Your task to perform on an android device: Show me popular videos on Youtube Image 0: 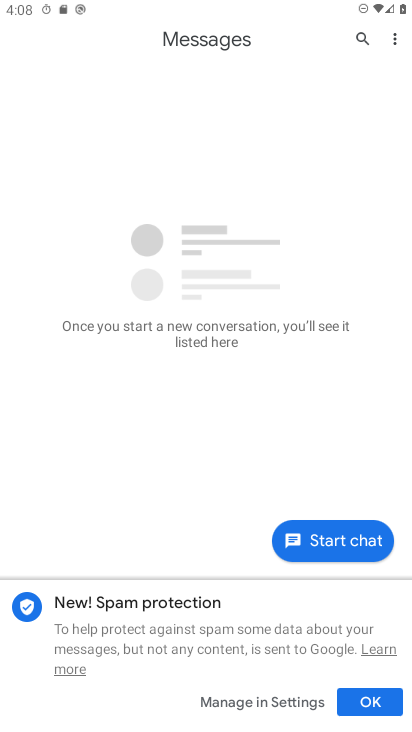
Step 0: press home button
Your task to perform on an android device: Show me popular videos on Youtube Image 1: 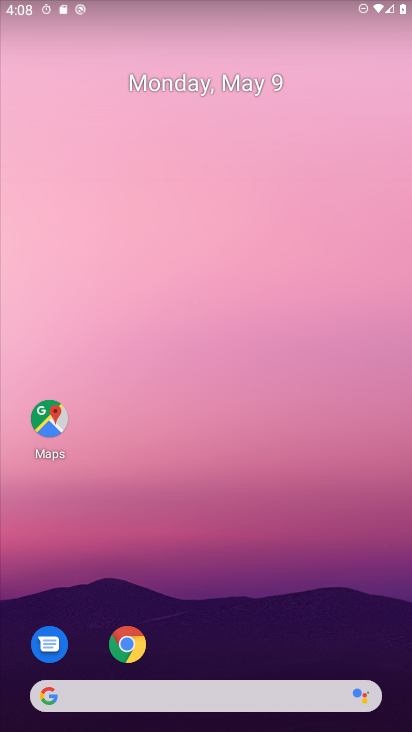
Step 1: click (141, 649)
Your task to perform on an android device: Show me popular videos on Youtube Image 2: 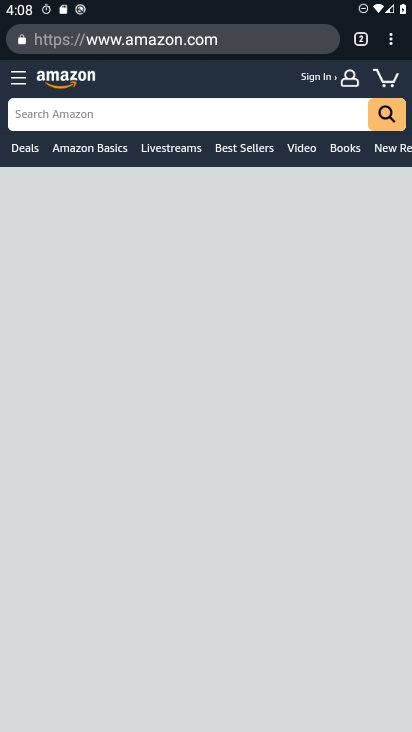
Step 2: click (359, 38)
Your task to perform on an android device: Show me popular videos on Youtube Image 3: 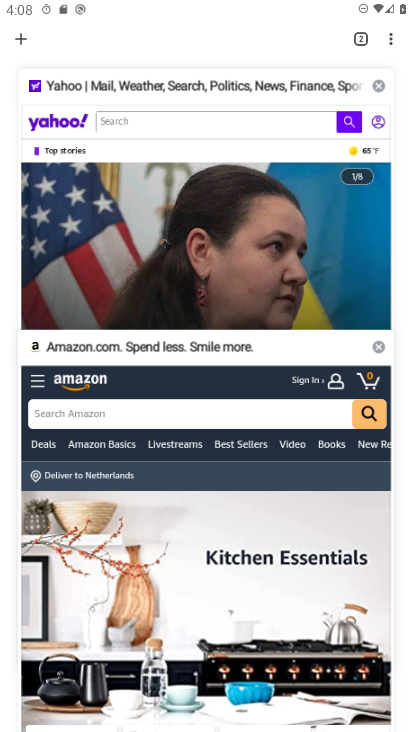
Step 3: click (24, 50)
Your task to perform on an android device: Show me popular videos on Youtube Image 4: 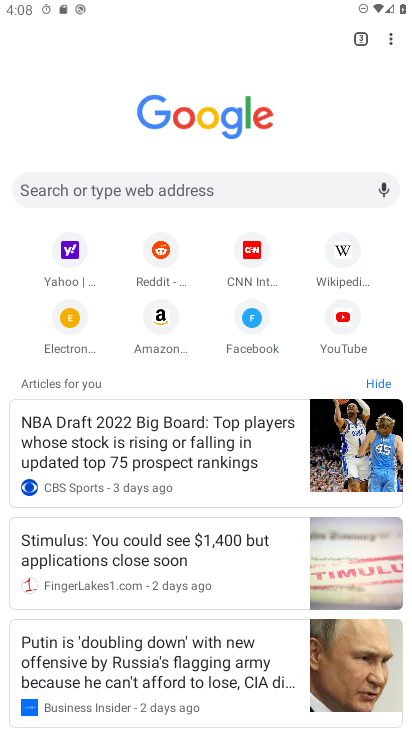
Step 4: click (168, 256)
Your task to perform on an android device: Show me popular videos on Youtube Image 5: 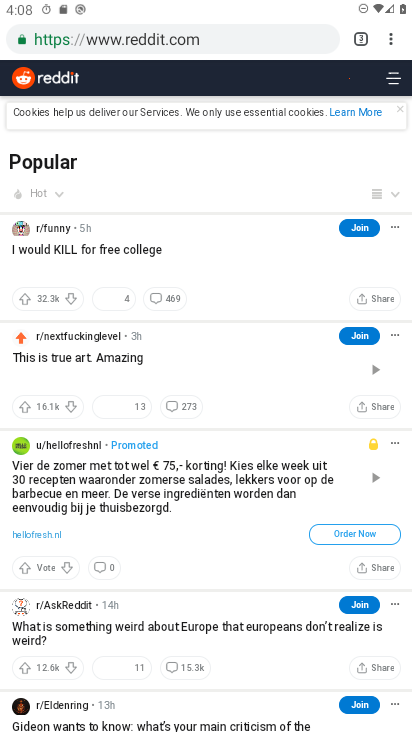
Step 5: task complete